Your task to perform on an android device: toggle pop-ups in chrome Image 0: 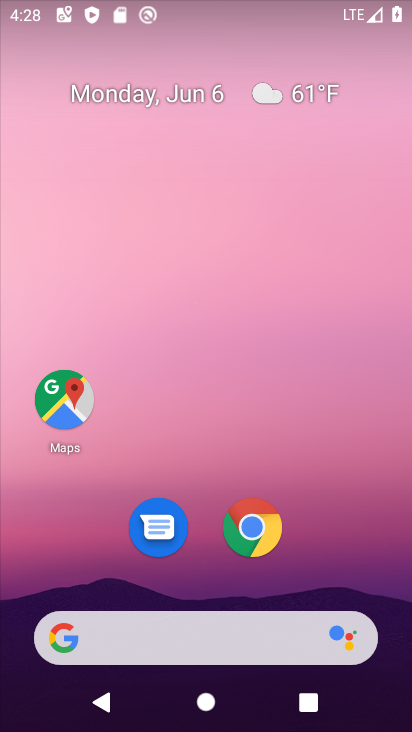
Step 0: click (258, 526)
Your task to perform on an android device: toggle pop-ups in chrome Image 1: 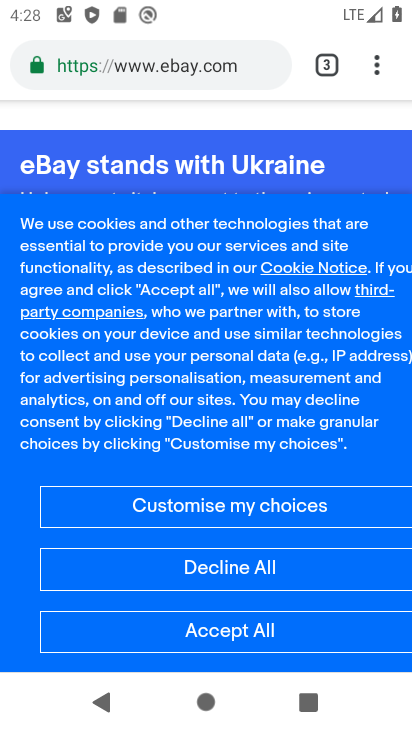
Step 1: click (362, 57)
Your task to perform on an android device: toggle pop-ups in chrome Image 2: 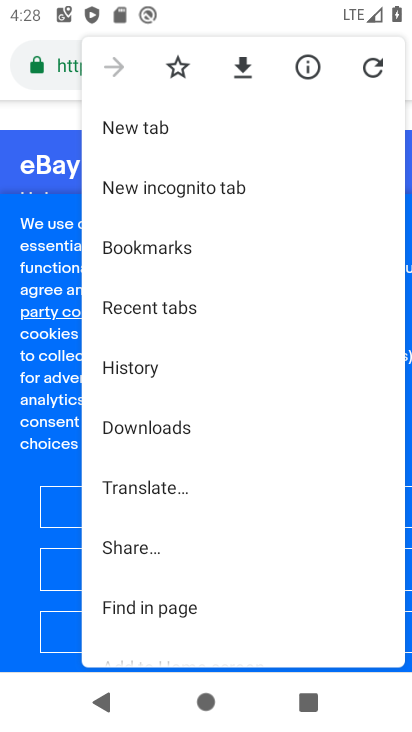
Step 2: drag from (328, 557) to (309, 272)
Your task to perform on an android device: toggle pop-ups in chrome Image 3: 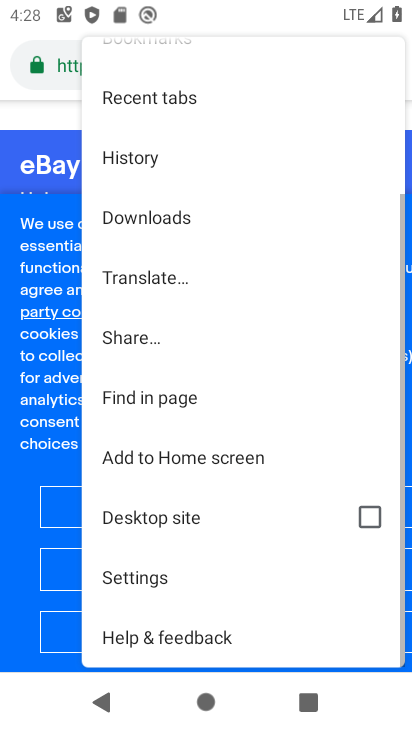
Step 3: click (139, 572)
Your task to perform on an android device: toggle pop-ups in chrome Image 4: 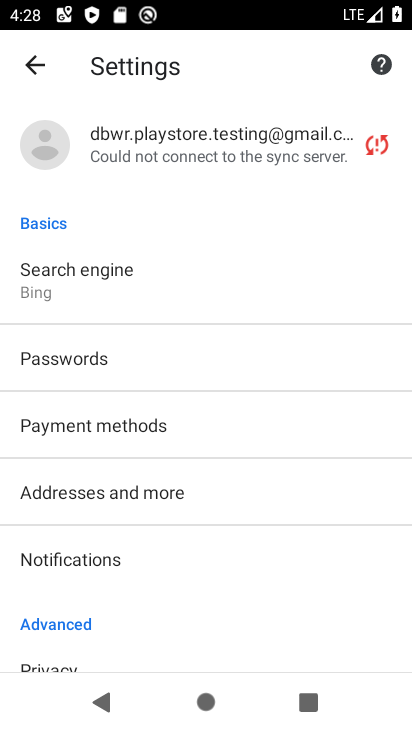
Step 4: drag from (179, 506) to (182, 318)
Your task to perform on an android device: toggle pop-ups in chrome Image 5: 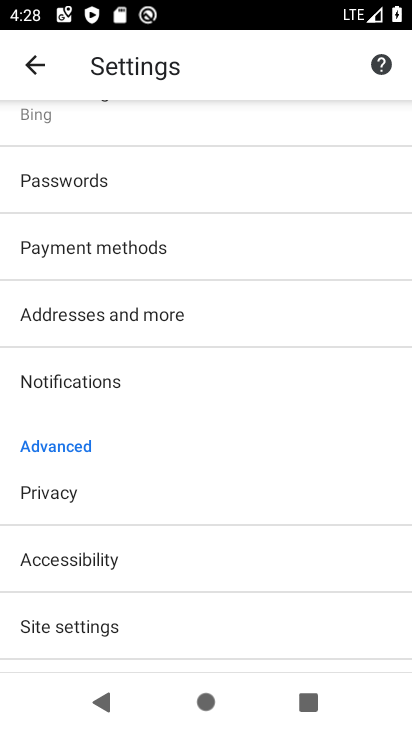
Step 5: click (126, 600)
Your task to perform on an android device: toggle pop-ups in chrome Image 6: 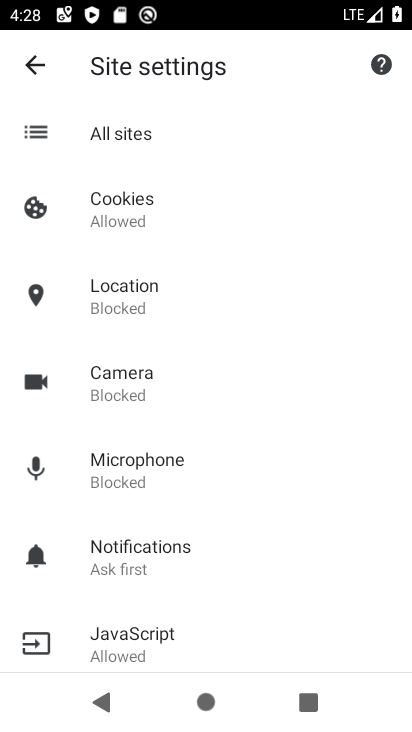
Step 6: drag from (249, 566) to (253, 337)
Your task to perform on an android device: toggle pop-ups in chrome Image 7: 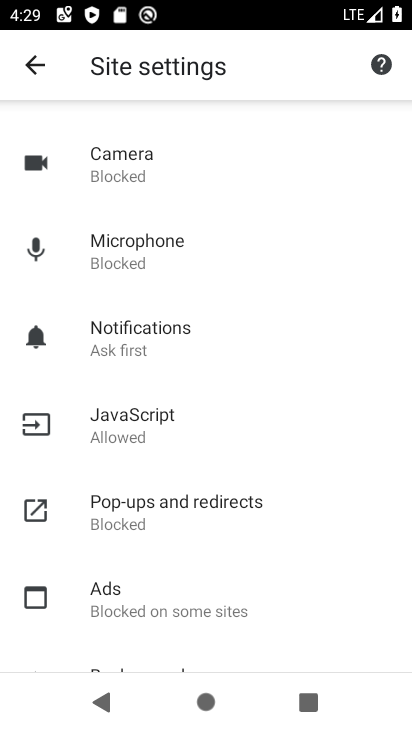
Step 7: click (220, 497)
Your task to perform on an android device: toggle pop-ups in chrome Image 8: 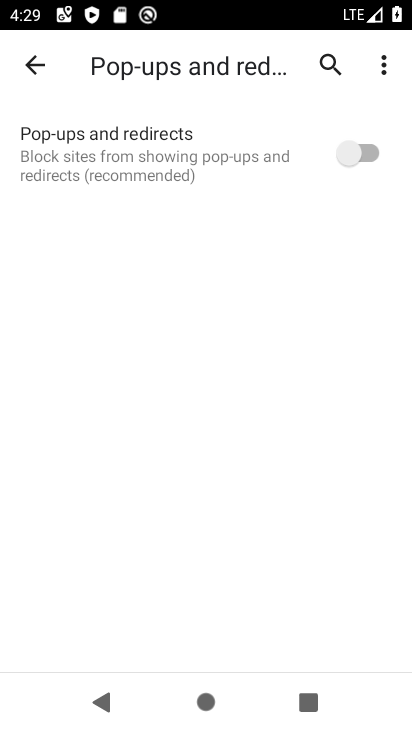
Step 8: click (357, 143)
Your task to perform on an android device: toggle pop-ups in chrome Image 9: 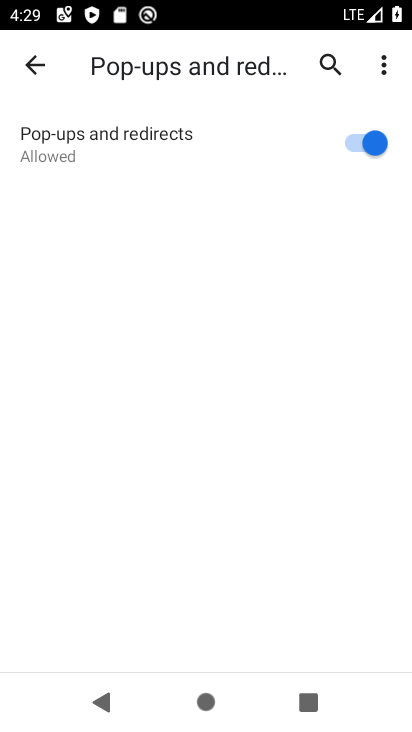
Step 9: task complete